Your task to perform on an android device: Show me popular videos on Youtube Image 0: 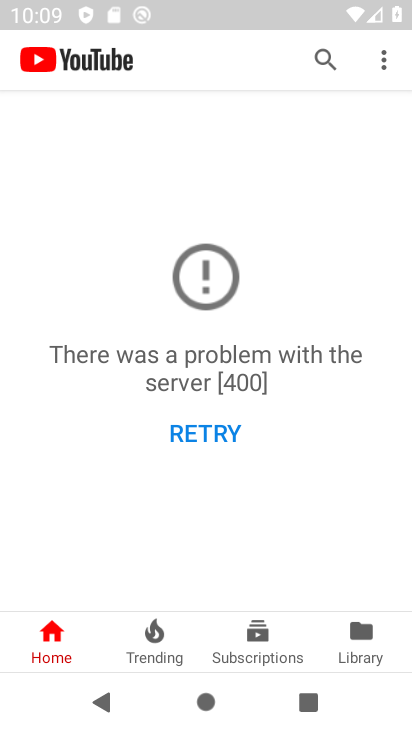
Step 0: click (360, 645)
Your task to perform on an android device: Show me popular videos on Youtube Image 1: 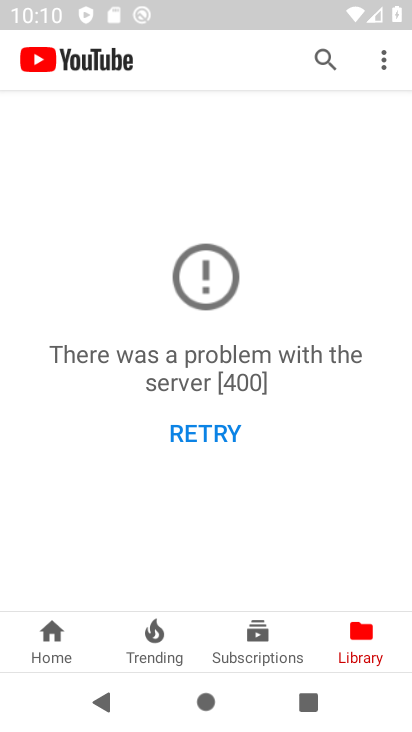
Step 1: task complete